Your task to perform on an android device: Empty the shopping cart on newegg.com. Add macbook to the cart on newegg.com, then select checkout. Image 0: 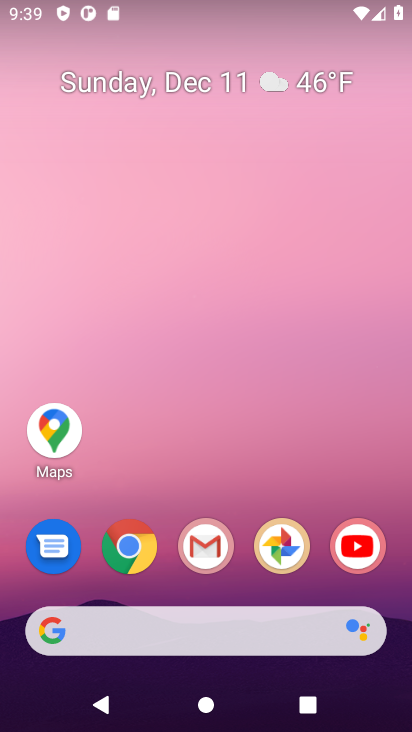
Step 0: click (137, 551)
Your task to perform on an android device: Empty the shopping cart on newegg.com. Add macbook to the cart on newegg.com, then select checkout. Image 1: 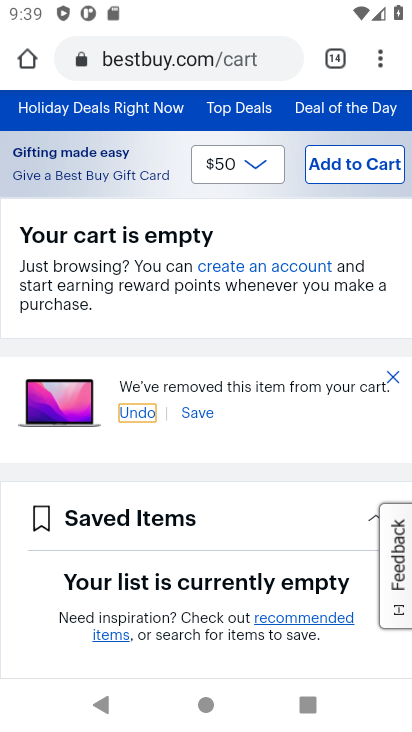
Step 1: click (149, 61)
Your task to perform on an android device: Empty the shopping cart on newegg.com. Add macbook to the cart on newegg.com, then select checkout. Image 2: 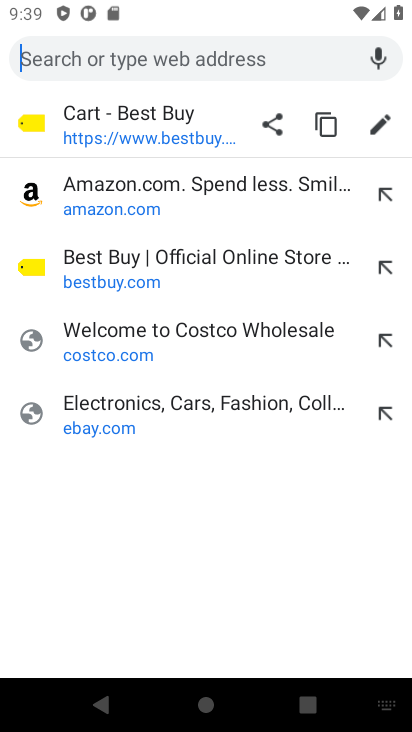
Step 2: type "newegg.com"
Your task to perform on an android device: Empty the shopping cart on newegg.com. Add macbook to the cart on newegg.com, then select checkout. Image 3: 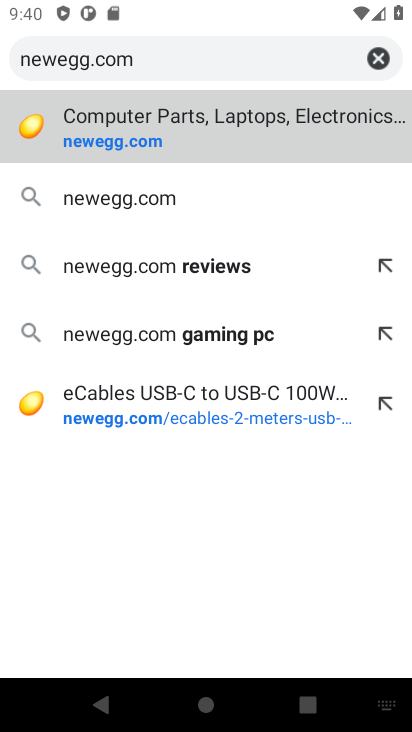
Step 3: click (105, 156)
Your task to perform on an android device: Empty the shopping cart on newegg.com. Add macbook to the cart on newegg.com, then select checkout. Image 4: 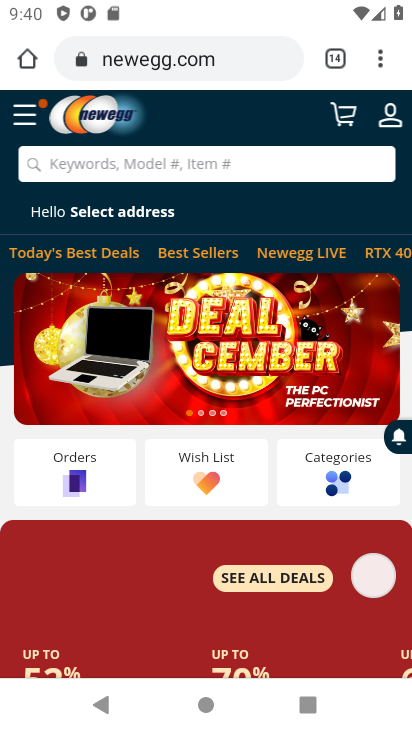
Step 4: click (347, 118)
Your task to perform on an android device: Empty the shopping cart on newegg.com. Add macbook to the cart on newegg.com, then select checkout. Image 5: 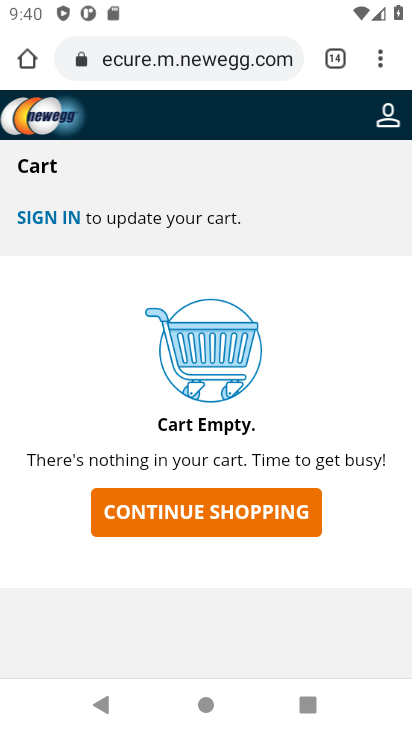
Step 5: click (179, 504)
Your task to perform on an android device: Empty the shopping cart on newegg.com. Add macbook to the cart on newegg.com, then select checkout. Image 6: 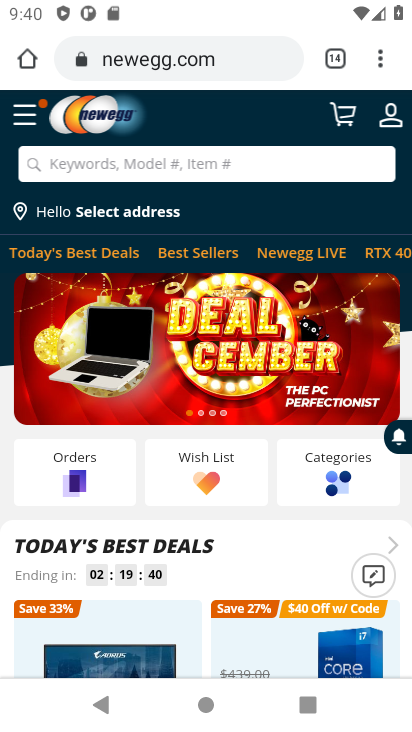
Step 6: click (139, 167)
Your task to perform on an android device: Empty the shopping cart on newegg.com. Add macbook to the cart on newegg.com, then select checkout. Image 7: 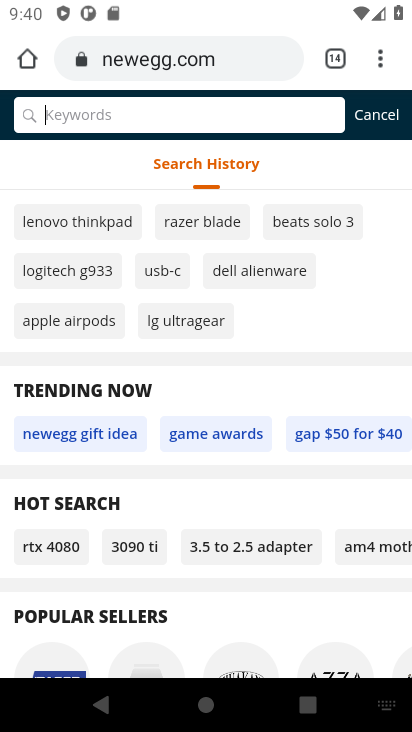
Step 7: type " macbook "
Your task to perform on an android device: Empty the shopping cart on newegg.com. Add macbook to the cart on newegg.com, then select checkout. Image 8: 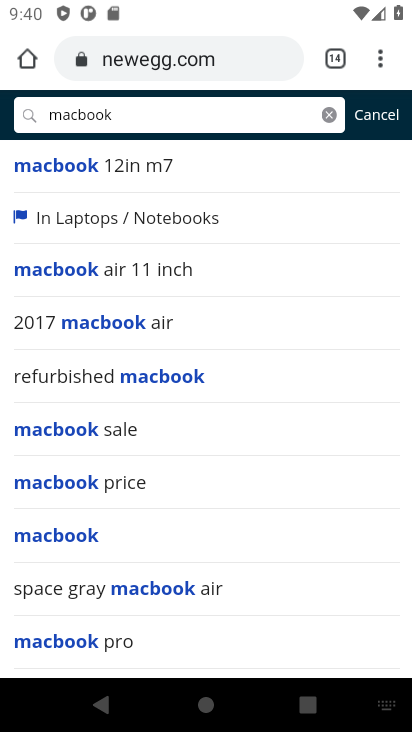
Step 8: click (57, 543)
Your task to perform on an android device: Empty the shopping cart on newegg.com. Add macbook to the cart on newegg.com, then select checkout. Image 9: 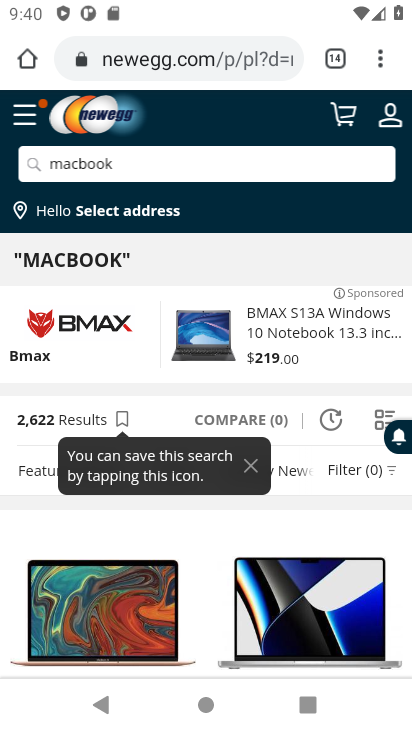
Step 9: drag from (205, 571) to (203, 223)
Your task to perform on an android device: Empty the shopping cart on newegg.com. Add macbook to the cart on newegg.com, then select checkout. Image 10: 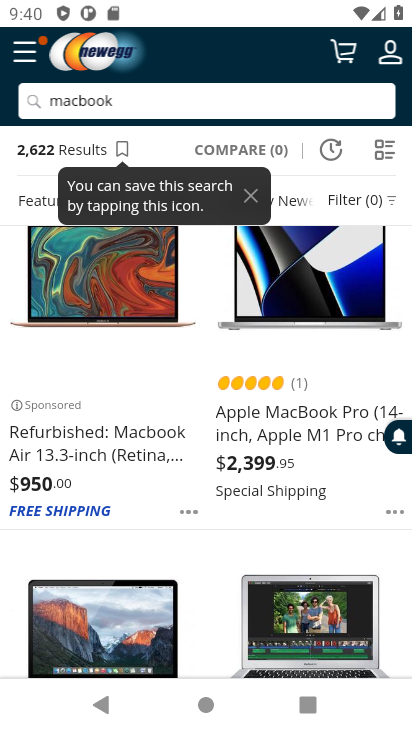
Step 10: click (50, 441)
Your task to perform on an android device: Empty the shopping cart on newegg.com. Add macbook to the cart on newegg.com, then select checkout. Image 11: 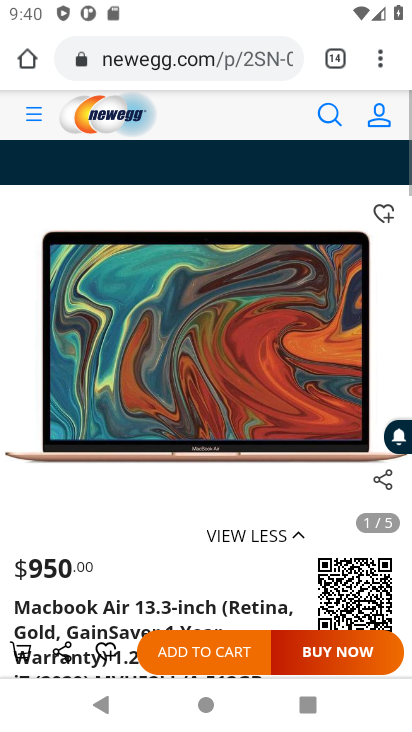
Step 11: click (193, 653)
Your task to perform on an android device: Empty the shopping cart on newegg.com. Add macbook to the cart on newegg.com, then select checkout. Image 12: 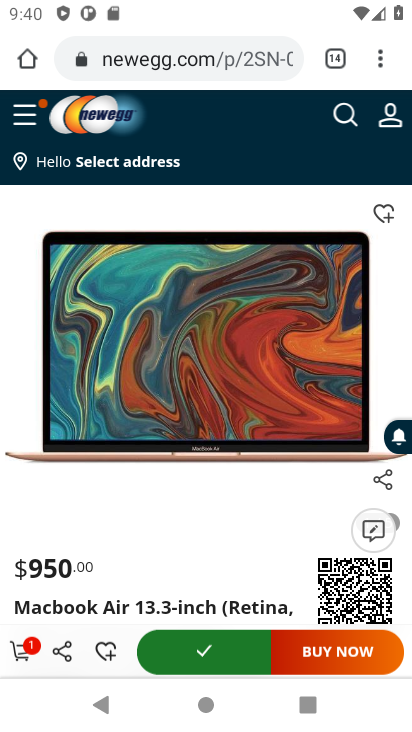
Step 12: click (25, 656)
Your task to perform on an android device: Empty the shopping cart on newegg.com. Add macbook to the cart on newegg.com, then select checkout. Image 13: 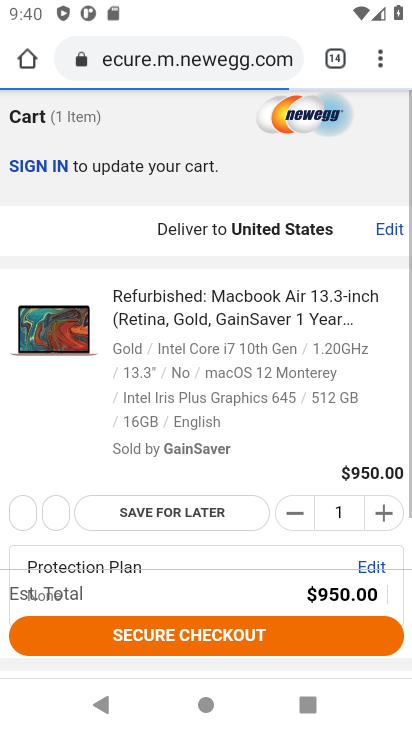
Step 13: click (100, 640)
Your task to perform on an android device: Empty the shopping cart on newegg.com. Add macbook to the cart on newegg.com, then select checkout. Image 14: 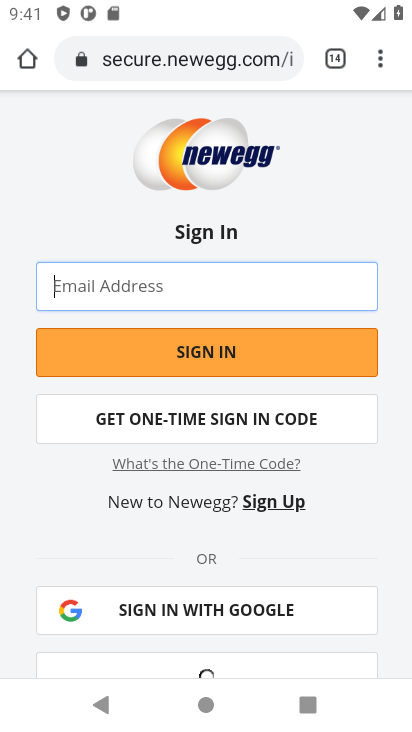
Step 14: task complete